Your task to perform on an android device: check google app version Image 0: 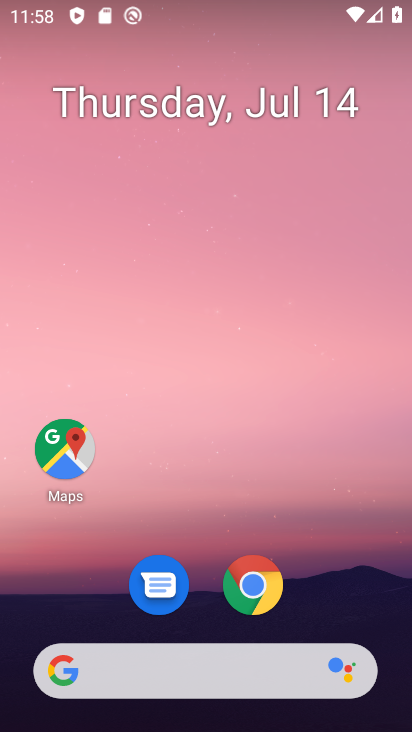
Step 0: click (145, 681)
Your task to perform on an android device: check google app version Image 1: 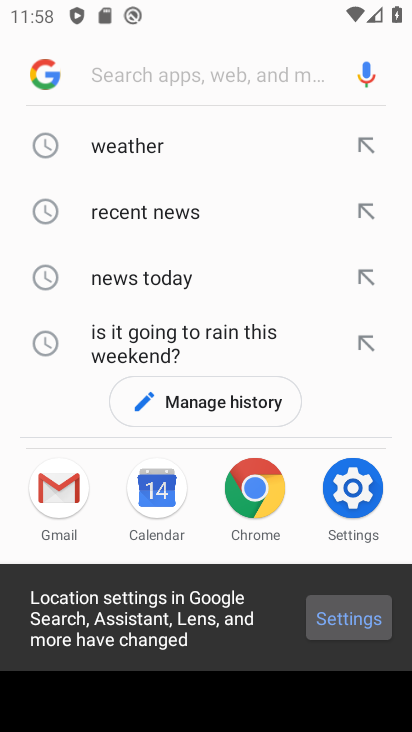
Step 1: click (52, 70)
Your task to perform on an android device: check google app version Image 2: 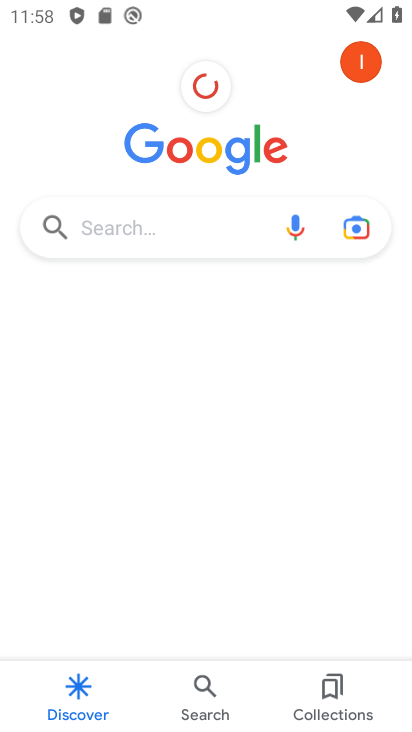
Step 2: click (364, 65)
Your task to perform on an android device: check google app version Image 3: 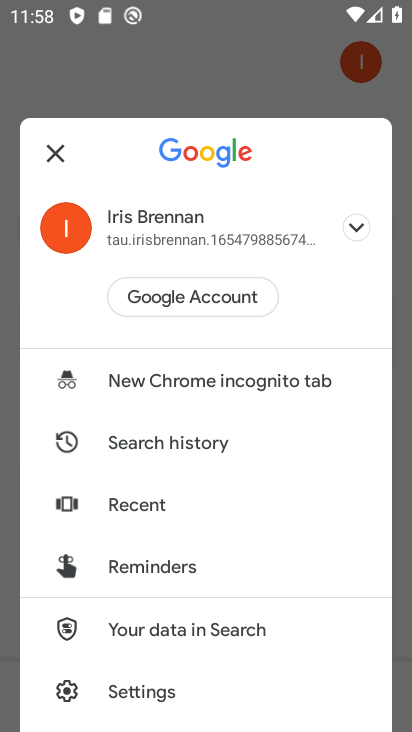
Step 3: click (163, 690)
Your task to perform on an android device: check google app version Image 4: 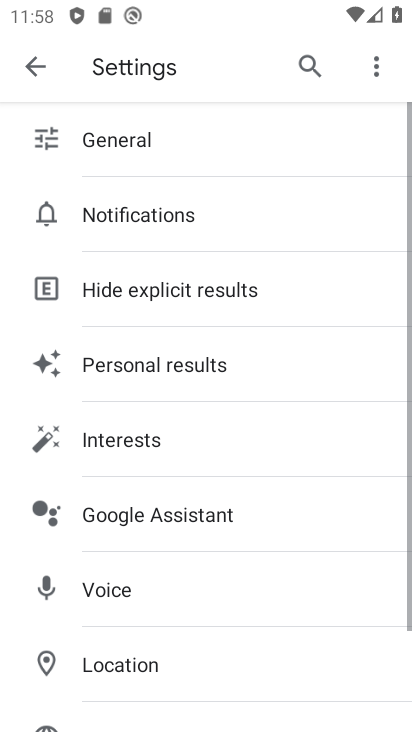
Step 4: drag from (185, 646) to (173, 324)
Your task to perform on an android device: check google app version Image 5: 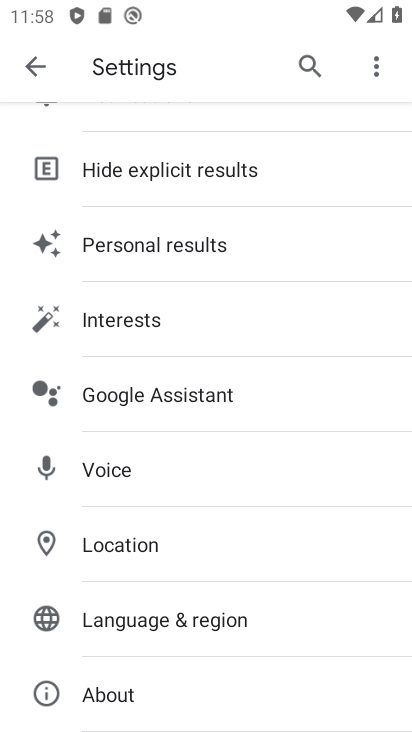
Step 5: click (118, 695)
Your task to perform on an android device: check google app version Image 6: 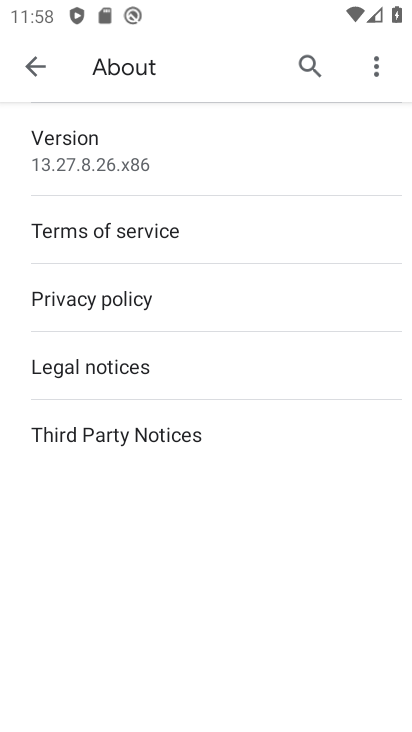
Step 6: task complete